Your task to perform on an android device: Empty the shopping cart on bestbuy.com. Add logitech g pro to the cart on bestbuy.com, then select checkout. Image 0: 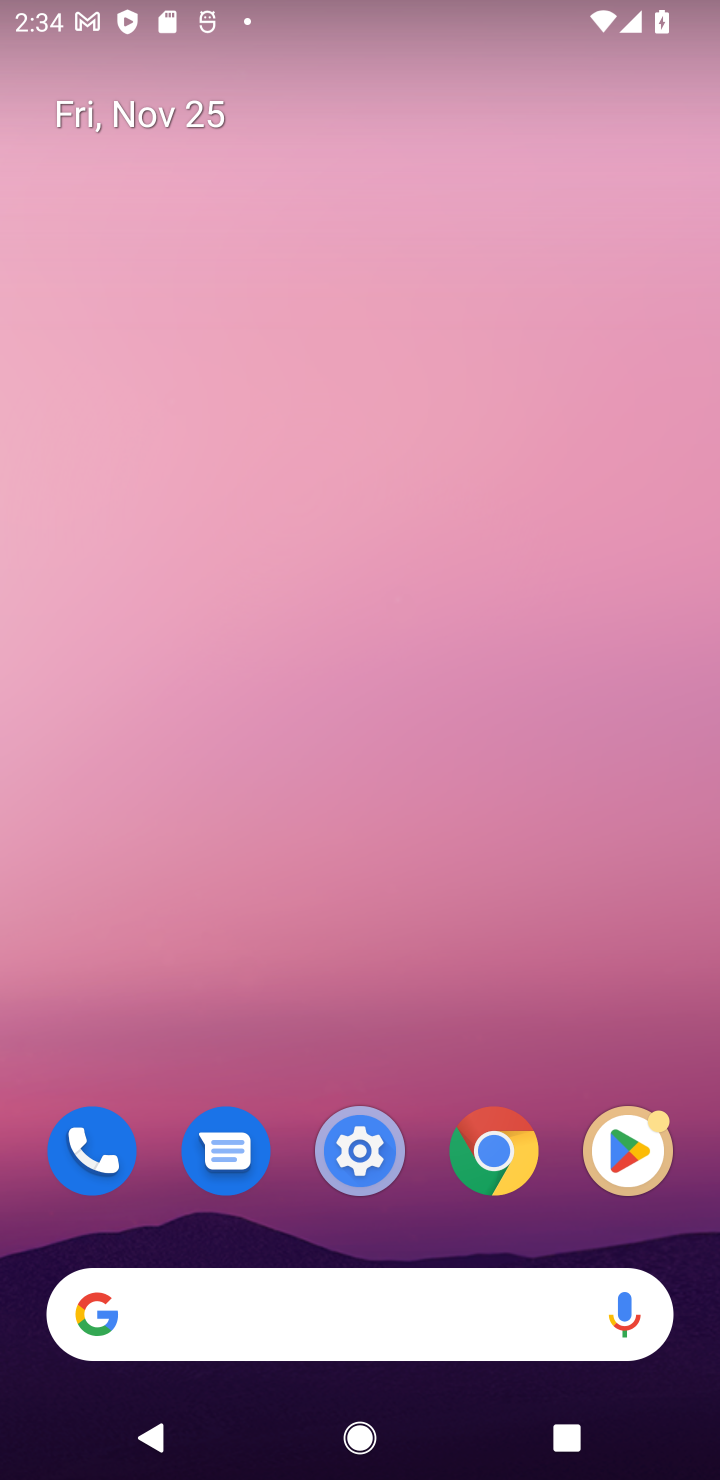
Step 0: click (273, 1357)
Your task to perform on an android device: Empty the shopping cart on bestbuy.com. Add logitech g pro to the cart on bestbuy.com, then select checkout. Image 1: 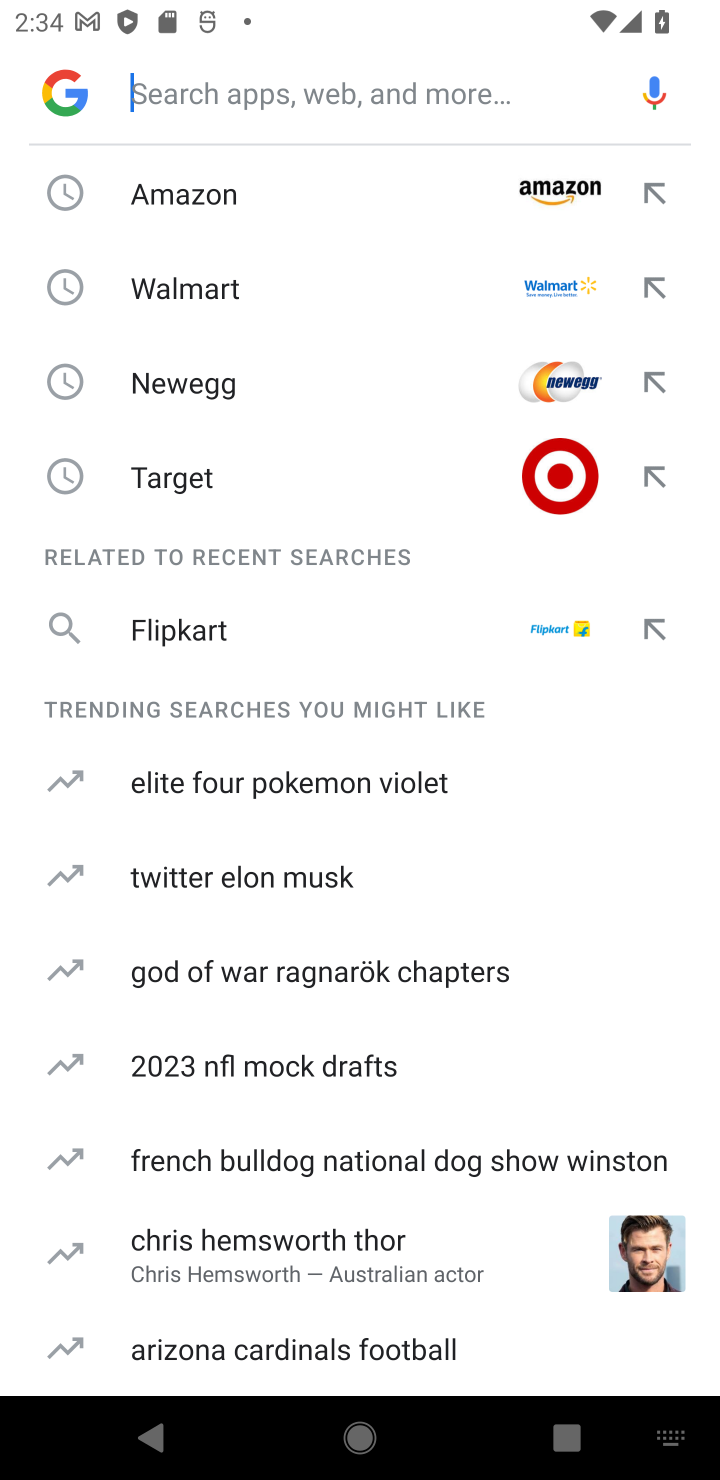
Step 1: type "bestbuy"
Your task to perform on an android device: Empty the shopping cart on bestbuy.com. Add logitech g pro to the cart on bestbuy.com, then select checkout. Image 2: 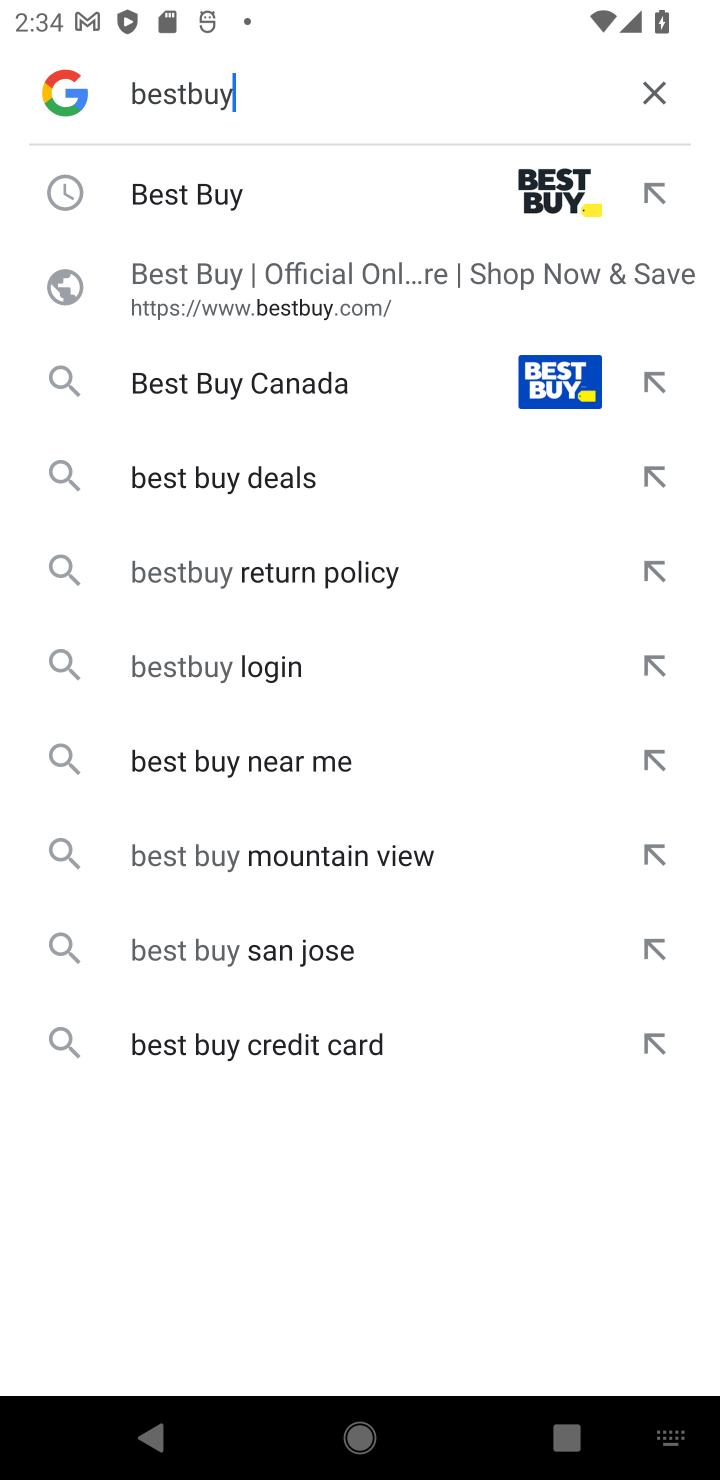
Step 2: click (162, 229)
Your task to perform on an android device: Empty the shopping cart on bestbuy.com. Add logitech g pro to the cart on bestbuy.com, then select checkout. Image 3: 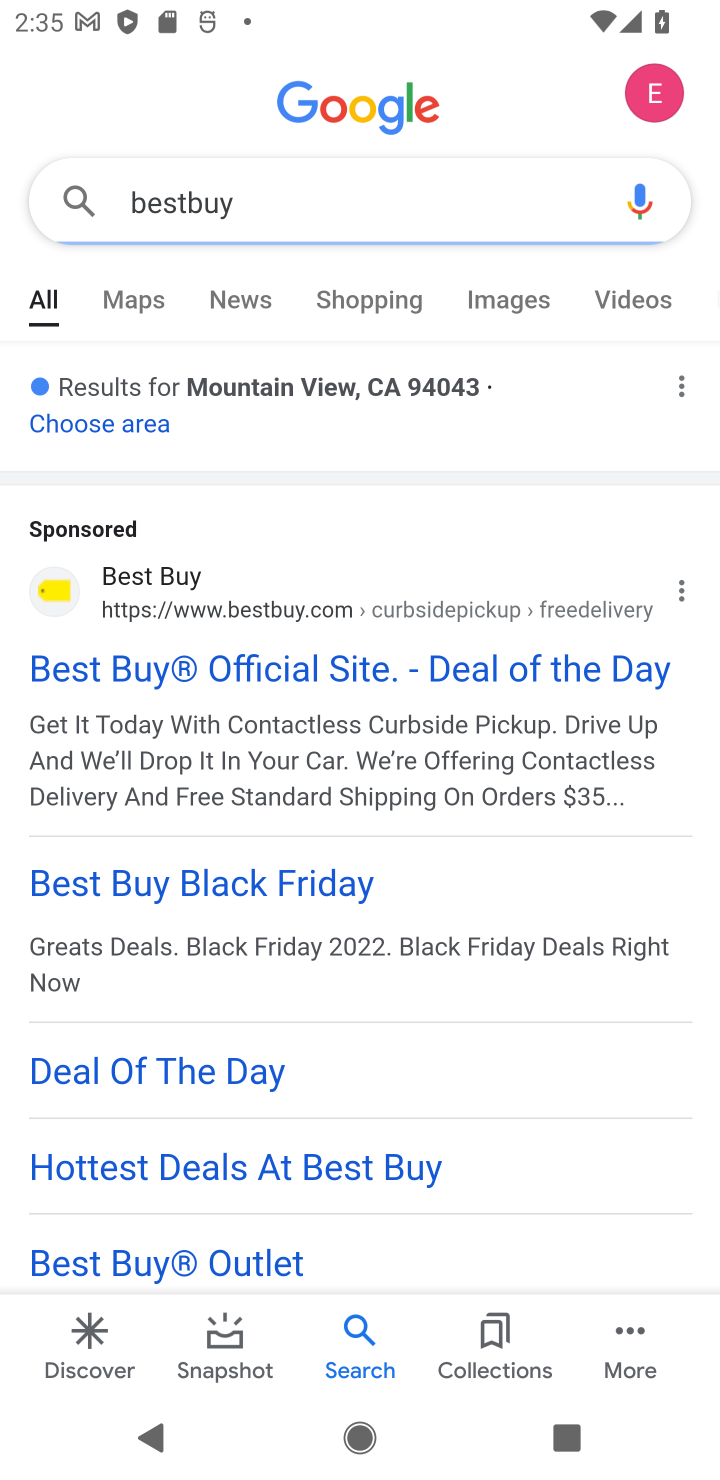
Step 3: click (256, 686)
Your task to perform on an android device: Empty the shopping cart on bestbuy.com. Add logitech g pro to the cart on bestbuy.com, then select checkout. Image 4: 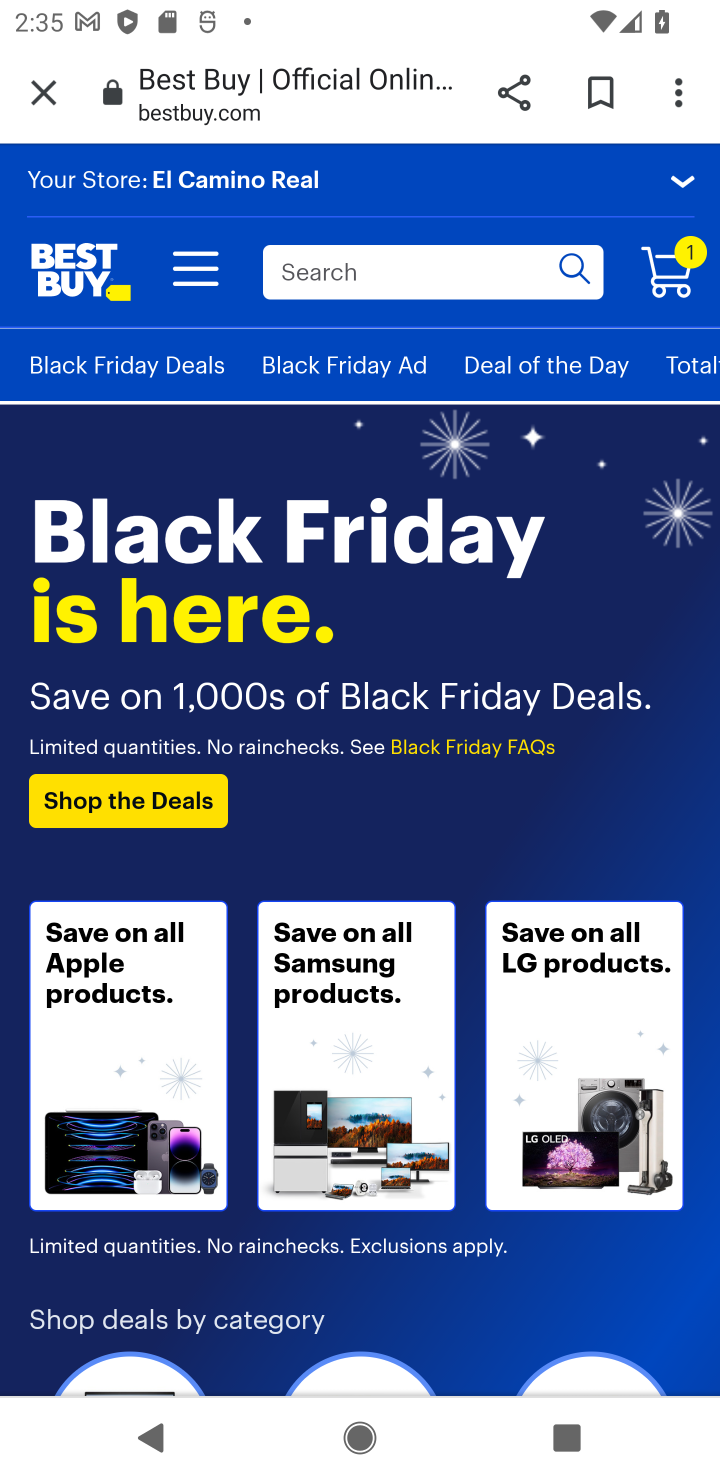
Step 4: task complete